Your task to perform on an android device: turn on bluetooth scan Image 0: 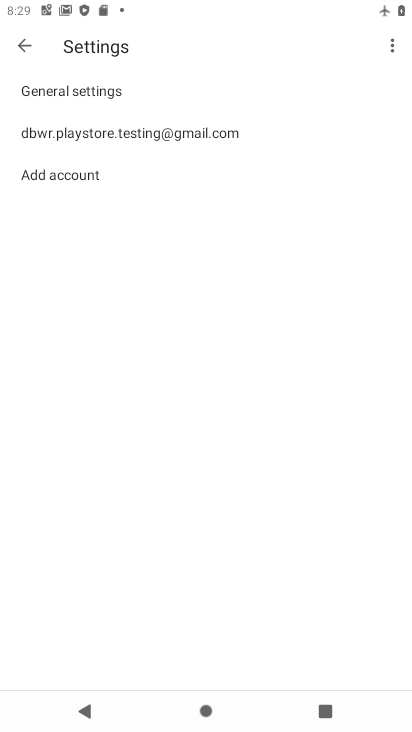
Step 0: press home button
Your task to perform on an android device: turn on bluetooth scan Image 1: 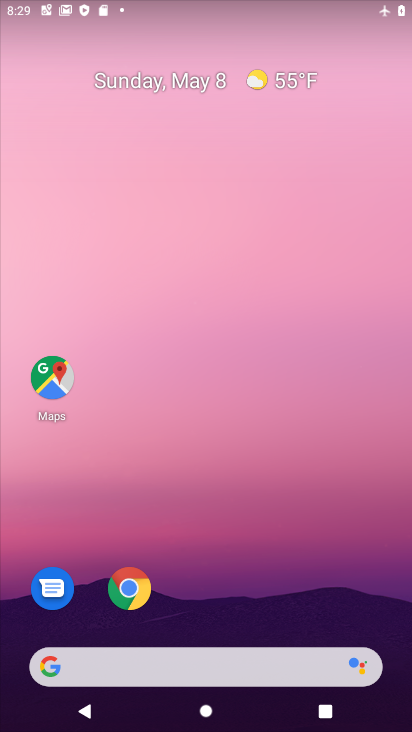
Step 1: drag from (319, 596) to (279, 65)
Your task to perform on an android device: turn on bluetooth scan Image 2: 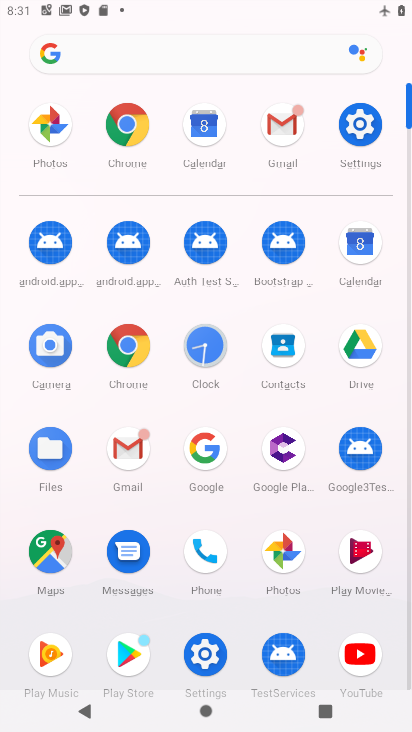
Step 2: click (199, 669)
Your task to perform on an android device: turn on bluetooth scan Image 3: 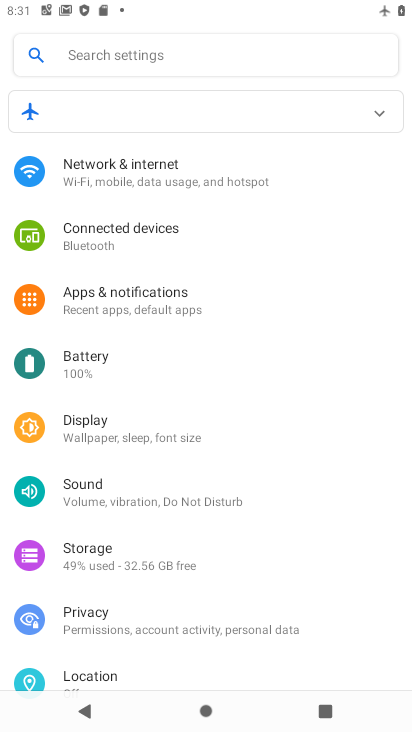
Step 3: click (110, 673)
Your task to perform on an android device: turn on bluetooth scan Image 4: 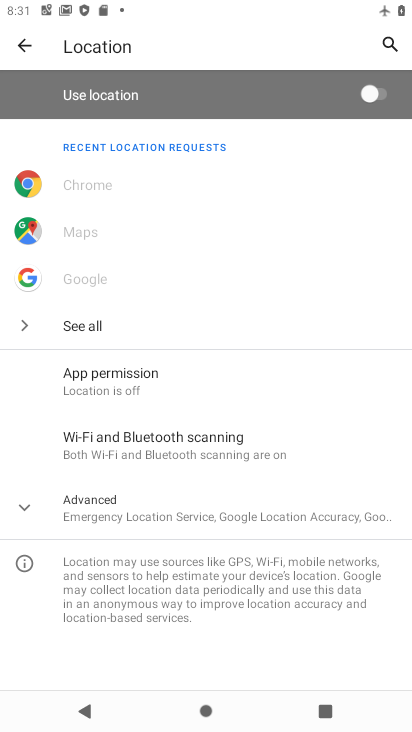
Step 4: click (104, 442)
Your task to perform on an android device: turn on bluetooth scan Image 5: 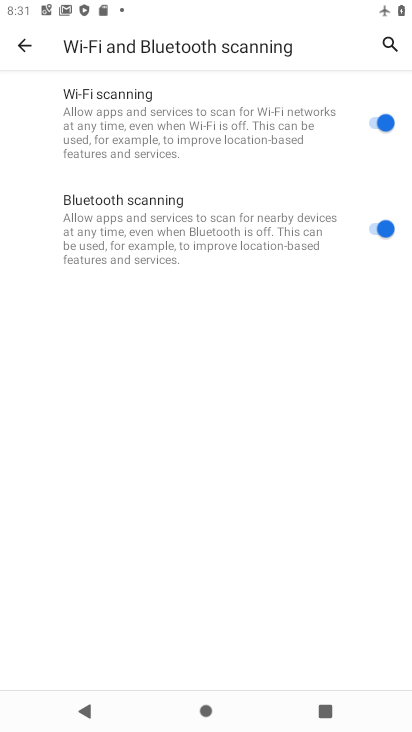
Step 5: task complete